Your task to perform on an android device: turn on javascript in the chrome app Image 0: 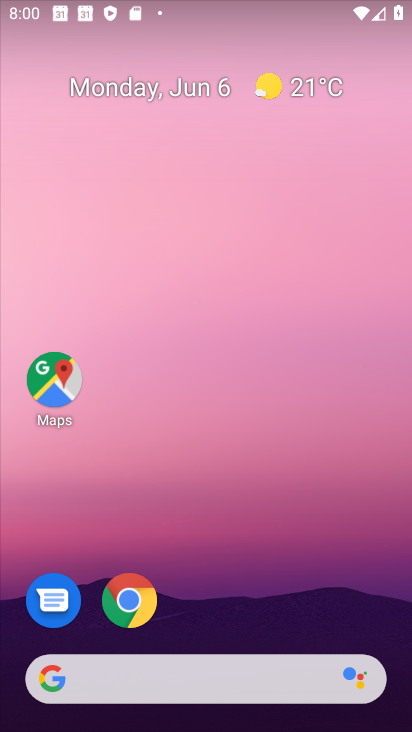
Step 0: click (136, 594)
Your task to perform on an android device: turn on javascript in the chrome app Image 1: 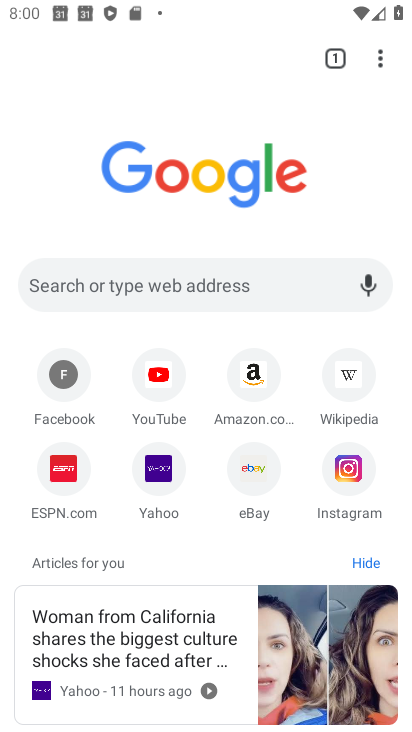
Step 1: click (385, 62)
Your task to perform on an android device: turn on javascript in the chrome app Image 2: 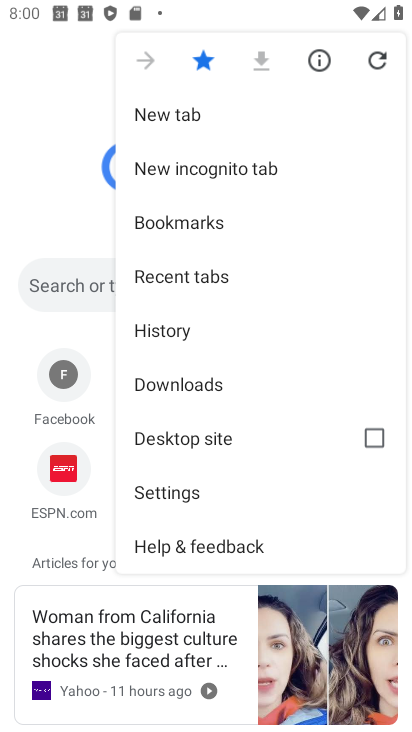
Step 2: click (171, 504)
Your task to perform on an android device: turn on javascript in the chrome app Image 3: 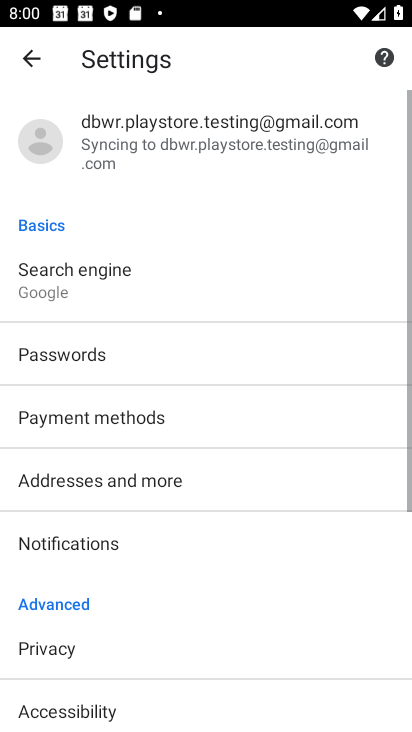
Step 3: drag from (129, 575) to (198, 163)
Your task to perform on an android device: turn on javascript in the chrome app Image 4: 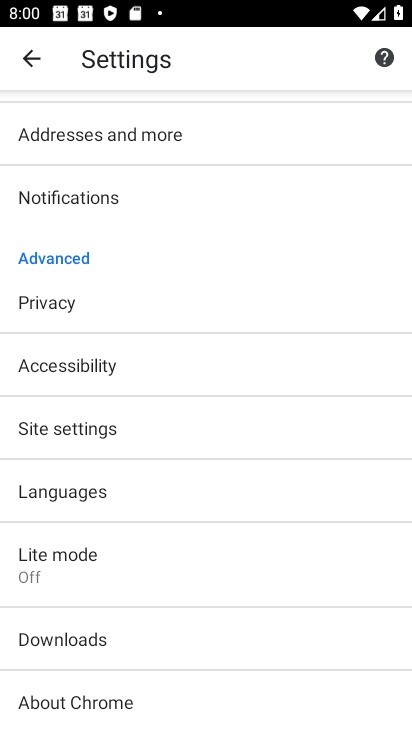
Step 4: click (62, 415)
Your task to perform on an android device: turn on javascript in the chrome app Image 5: 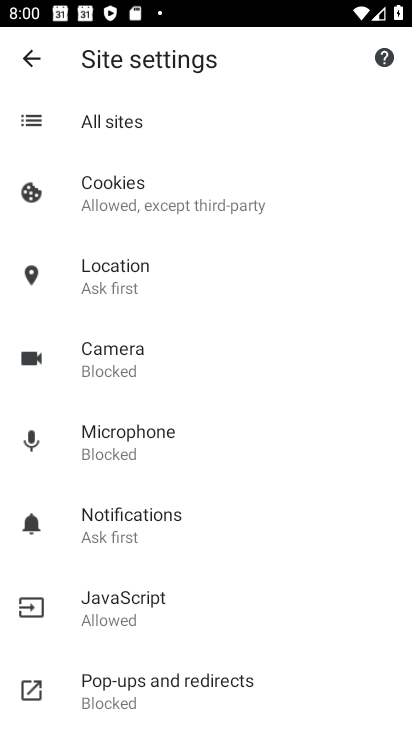
Step 5: click (115, 617)
Your task to perform on an android device: turn on javascript in the chrome app Image 6: 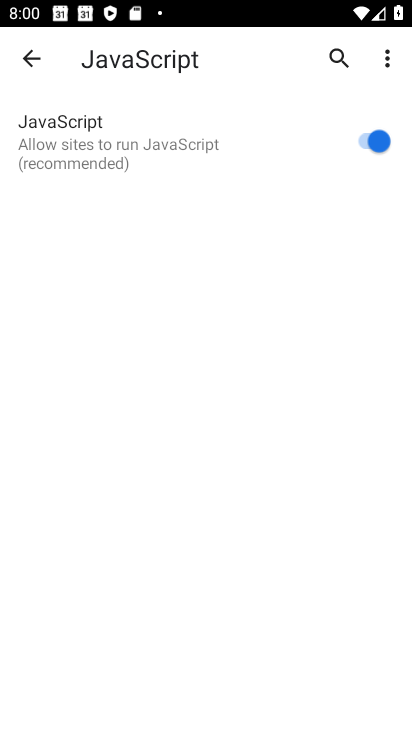
Step 6: task complete